Your task to perform on an android device: open a bookmark in the chrome app Image 0: 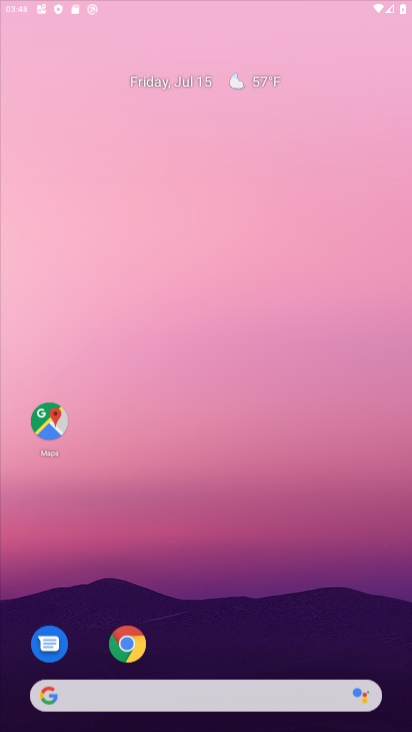
Step 0: click (204, 197)
Your task to perform on an android device: open a bookmark in the chrome app Image 1: 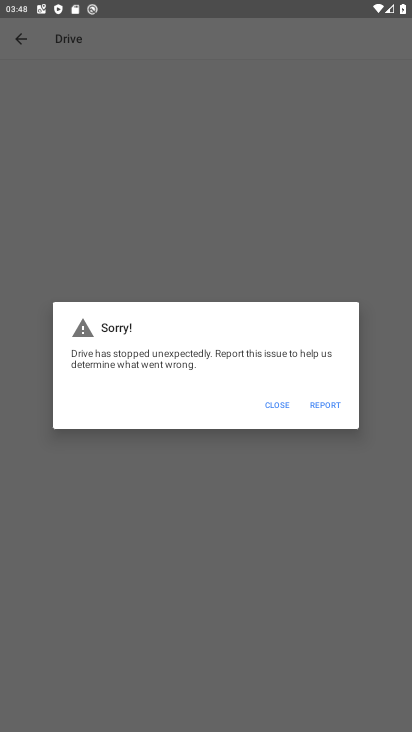
Step 1: press home button
Your task to perform on an android device: open a bookmark in the chrome app Image 2: 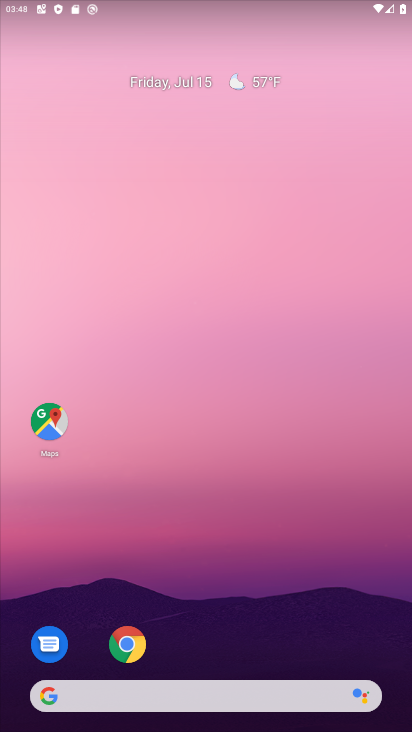
Step 2: click (260, 644)
Your task to perform on an android device: open a bookmark in the chrome app Image 3: 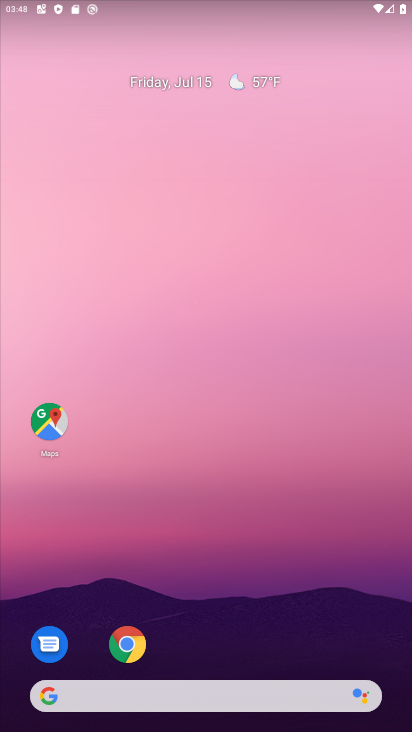
Step 3: click (131, 645)
Your task to perform on an android device: open a bookmark in the chrome app Image 4: 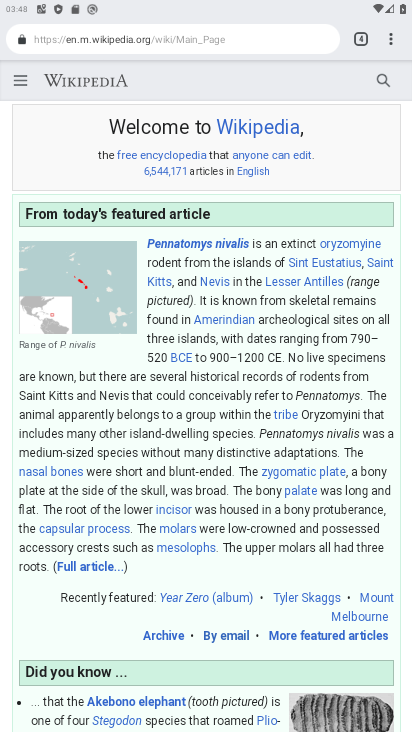
Step 4: click (391, 37)
Your task to perform on an android device: open a bookmark in the chrome app Image 5: 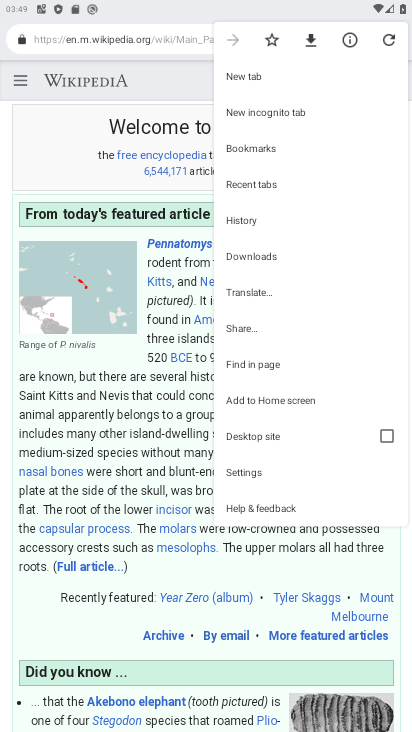
Step 5: click (340, 141)
Your task to perform on an android device: open a bookmark in the chrome app Image 6: 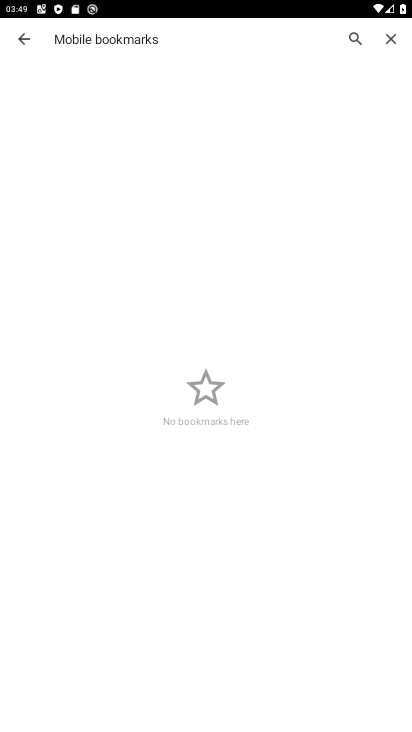
Step 6: task complete